Your task to perform on an android device: open app "Google Translate" Image 0: 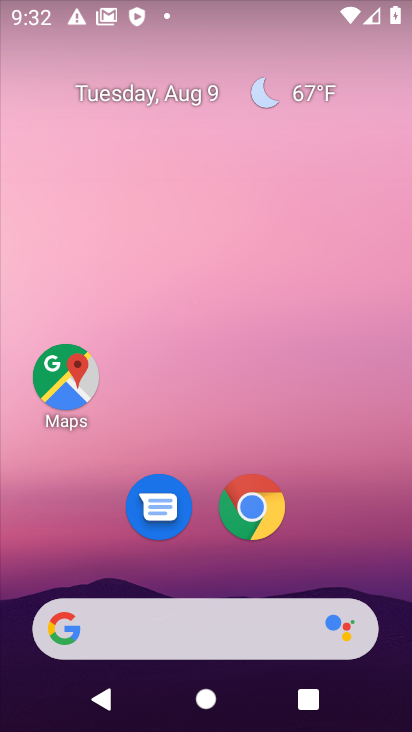
Step 0: drag from (240, 561) to (218, 142)
Your task to perform on an android device: open app "Google Translate" Image 1: 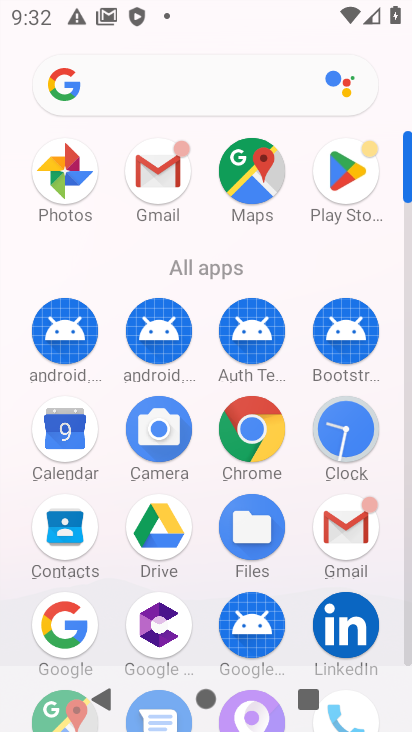
Step 1: click (343, 181)
Your task to perform on an android device: open app "Google Translate" Image 2: 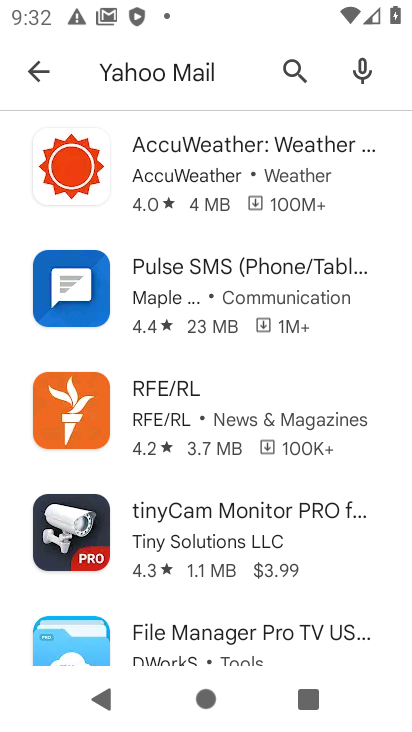
Step 2: click (52, 76)
Your task to perform on an android device: open app "Google Translate" Image 3: 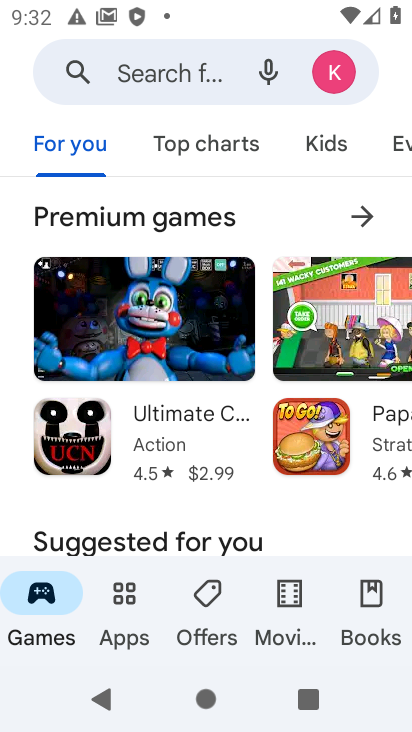
Step 3: click (160, 86)
Your task to perform on an android device: open app "Google Translate" Image 4: 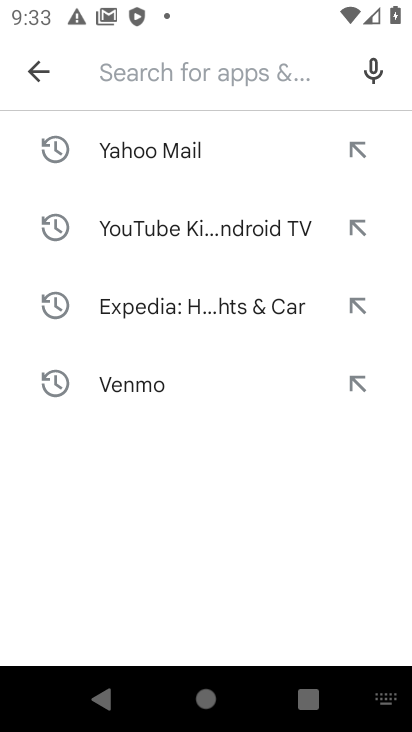
Step 4: type "Google Translate"
Your task to perform on an android device: open app "Google Translate" Image 5: 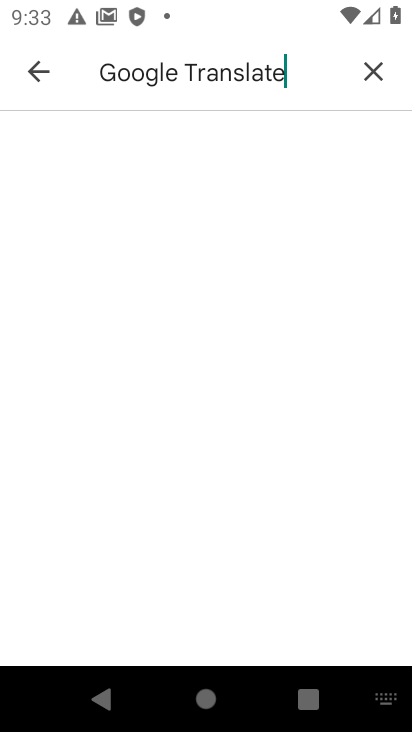
Step 5: press enter
Your task to perform on an android device: open app "Google Translate" Image 6: 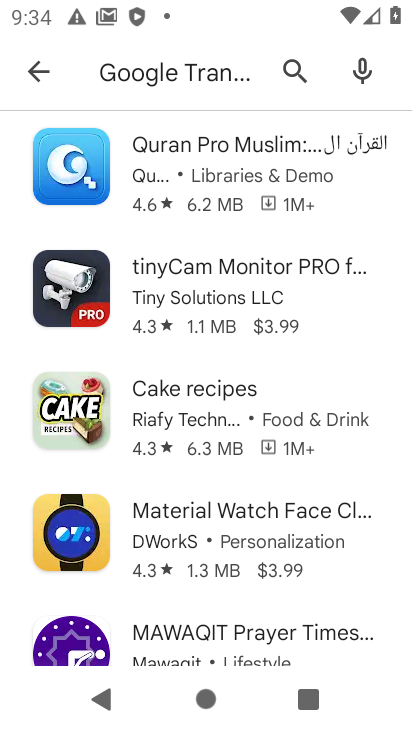
Step 6: task complete